Your task to perform on an android device: turn off translation in the chrome app Image 0: 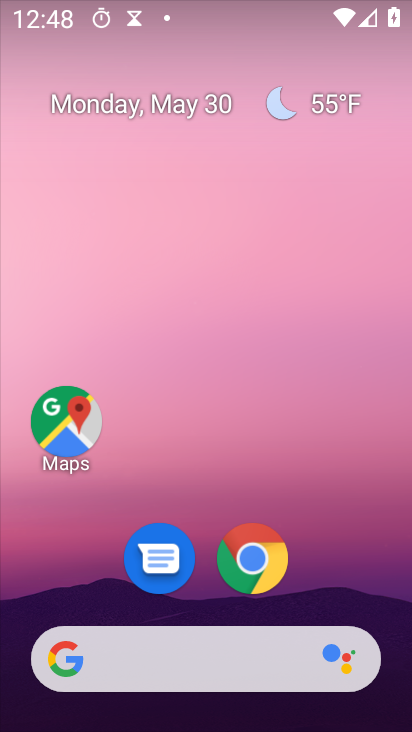
Step 0: drag from (362, 540) to (398, 35)
Your task to perform on an android device: turn off translation in the chrome app Image 1: 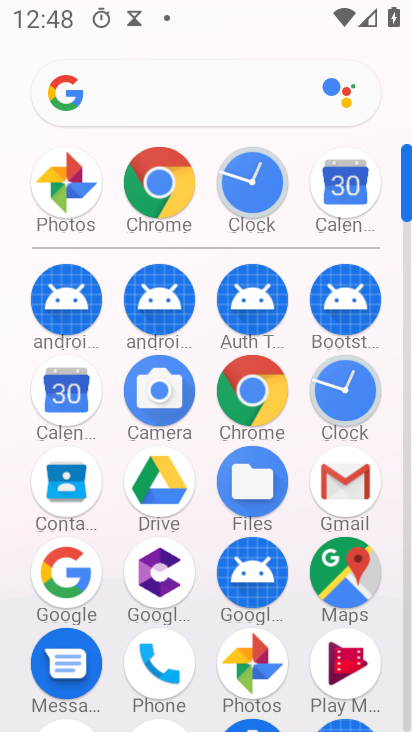
Step 1: click (154, 181)
Your task to perform on an android device: turn off translation in the chrome app Image 2: 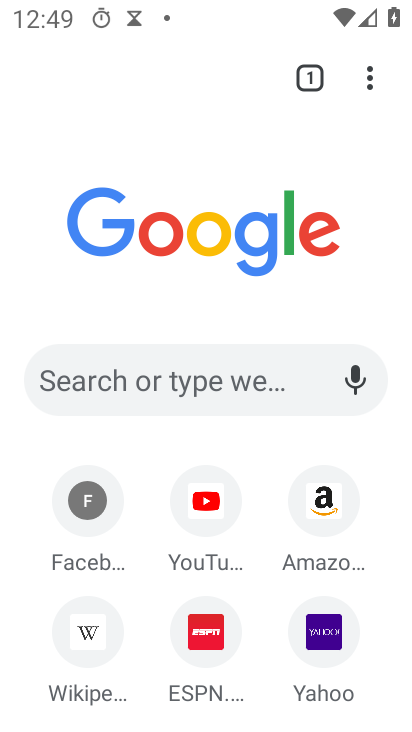
Step 2: drag from (372, 78) to (90, 631)
Your task to perform on an android device: turn off translation in the chrome app Image 3: 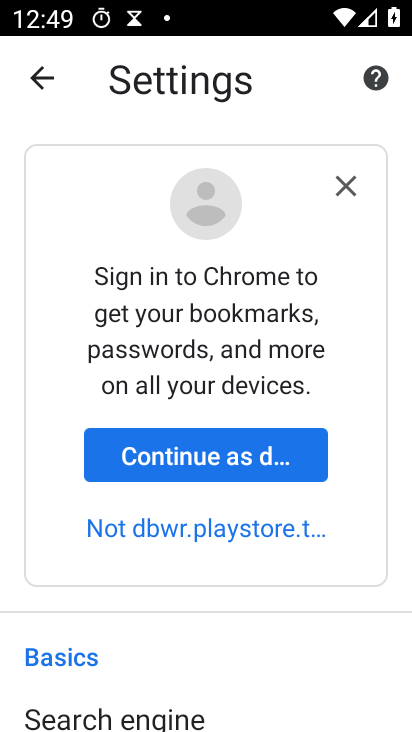
Step 3: drag from (144, 649) to (220, 235)
Your task to perform on an android device: turn off translation in the chrome app Image 4: 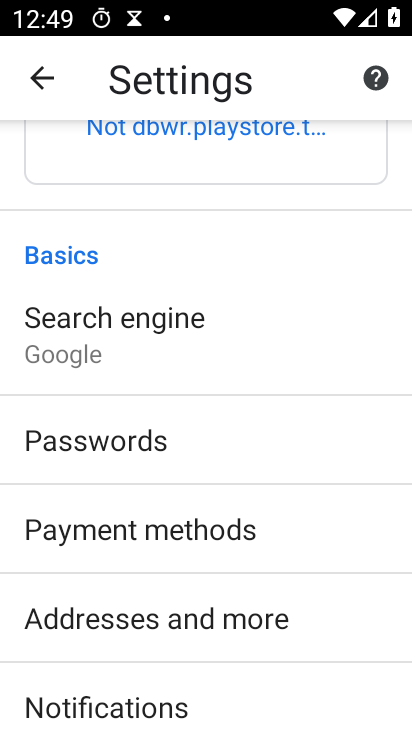
Step 4: drag from (179, 626) to (214, 312)
Your task to perform on an android device: turn off translation in the chrome app Image 5: 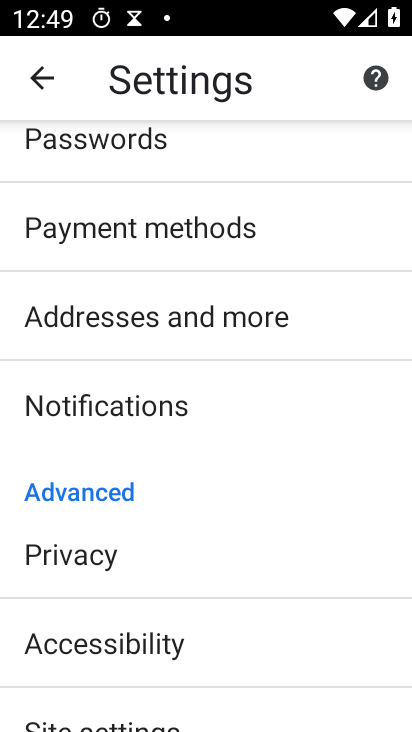
Step 5: drag from (196, 610) to (256, 219)
Your task to perform on an android device: turn off translation in the chrome app Image 6: 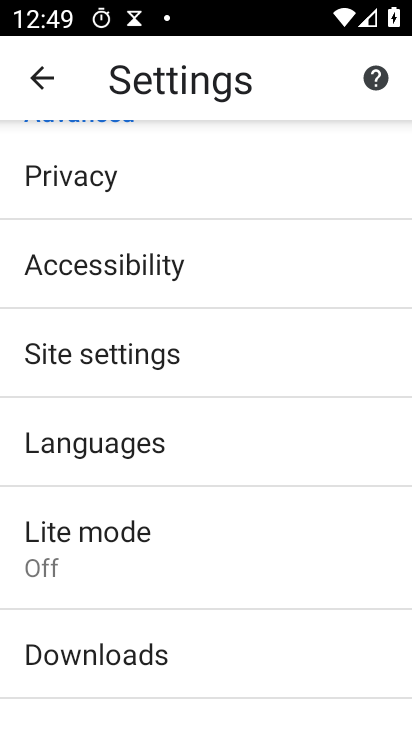
Step 6: click (100, 456)
Your task to perform on an android device: turn off translation in the chrome app Image 7: 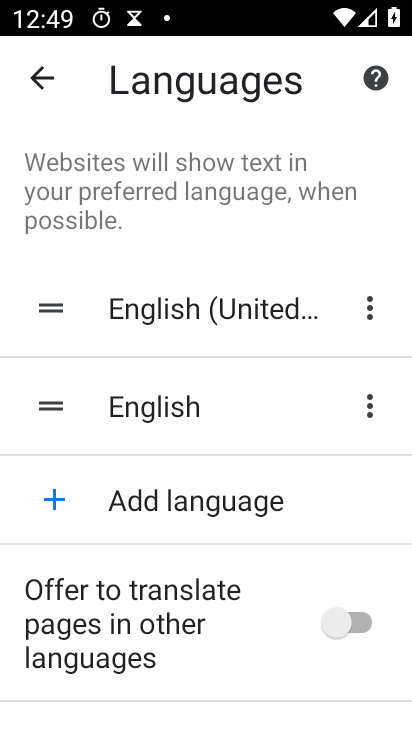
Step 7: task complete